Your task to perform on an android device: turn on notifications settings in the gmail app Image 0: 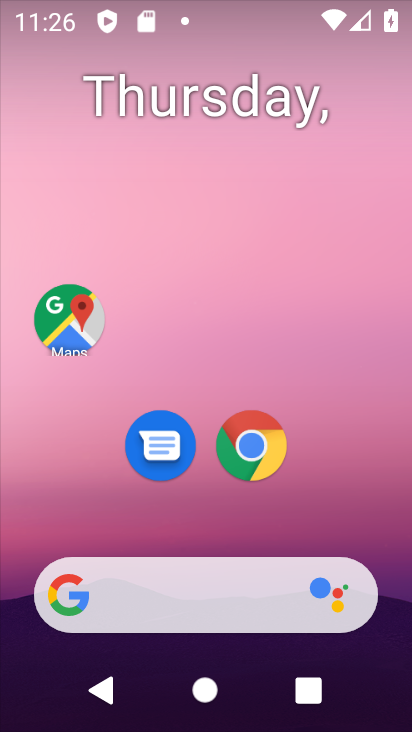
Step 0: drag from (211, 428) to (225, 83)
Your task to perform on an android device: turn on notifications settings in the gmail app Image 1: 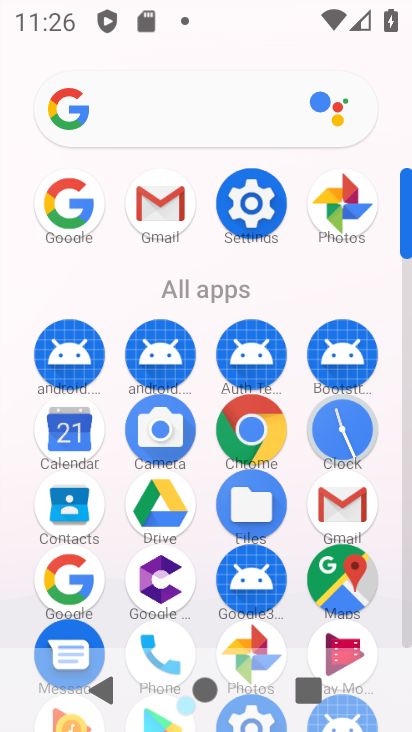
Step 1: click (177, 203)
Your task to perform on an android device: turn on notifications settings in the gmail app Image 2: 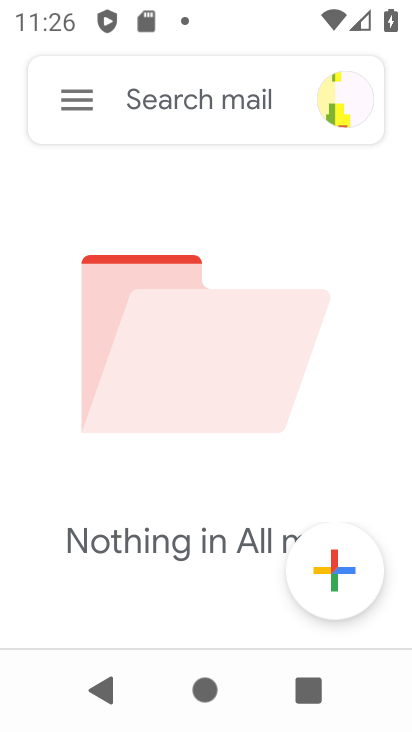
Step 2: click (73, 112)
Your task to perform on an android device: turn on notifications settings in the gmail app Image 3: 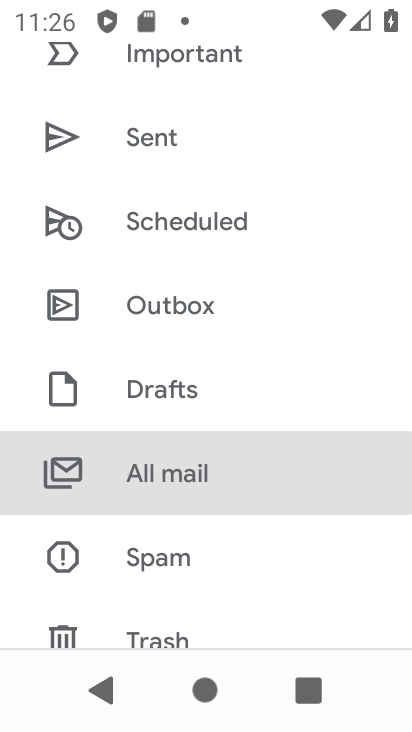
Step 3: drag from (218, 582) to (257, 252)
Your task to perform on an android device: turn on notifications settings in the gmail app Image 4: 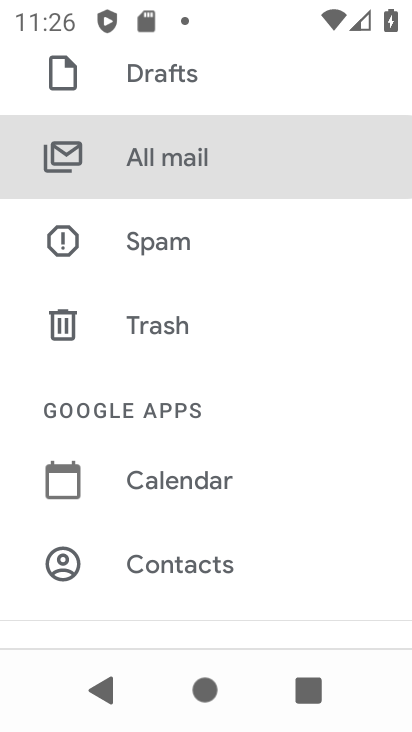
Step 4: drag from (238, 557) to (245, 295)
Your task to perform on an android device: turn on notifications settings in the gmail app Image 5: 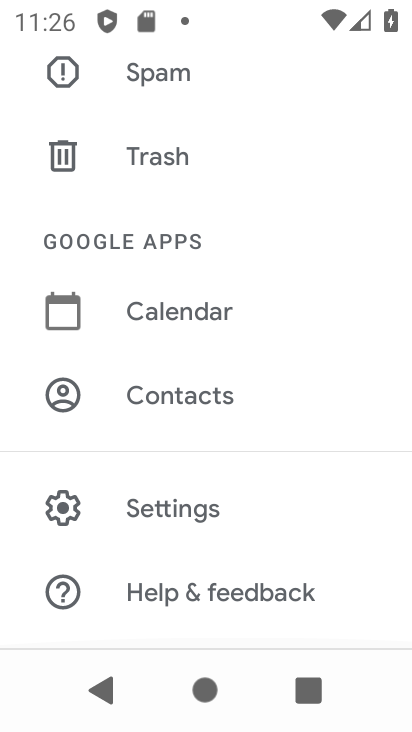
Step 5: click (177, 496)
Your task to perform on an android device: turn on notifications settings in the gmail app Image 6: 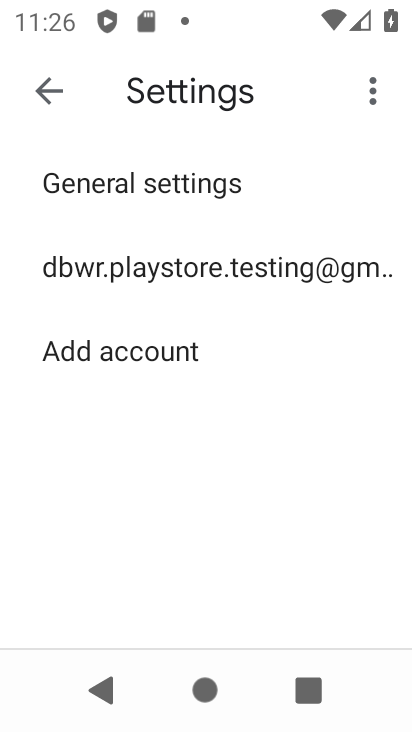
Step 6: click (200, 264)
Your task to perform on an android device: turn on notifications settings in the gmail app Image 7: 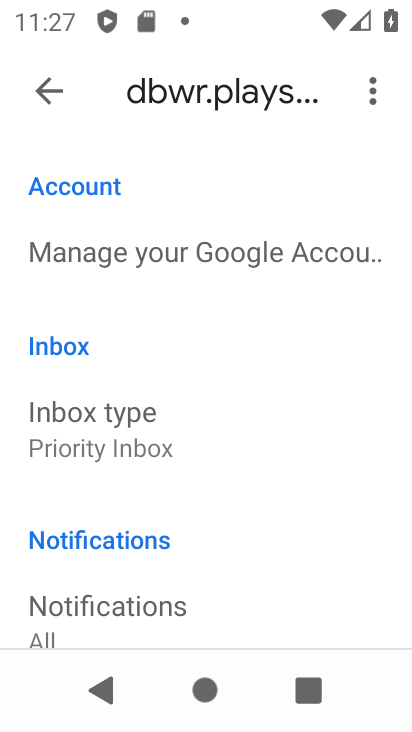
Step 7: drag from (217, 555) to (253, 289)
Your task to perform on an android device: turn on notifications settings in the gmail app Image 8: 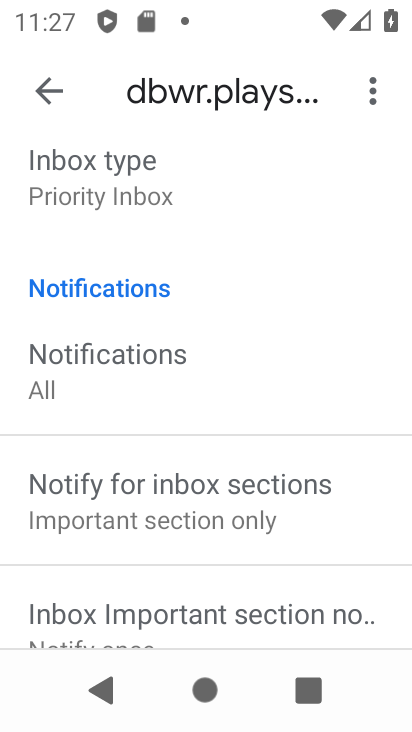
Step 8: drag from (241, 480) to (256, 276)
Your task to perform on an android device: turn on notifications settings in the gmail app Image 9: 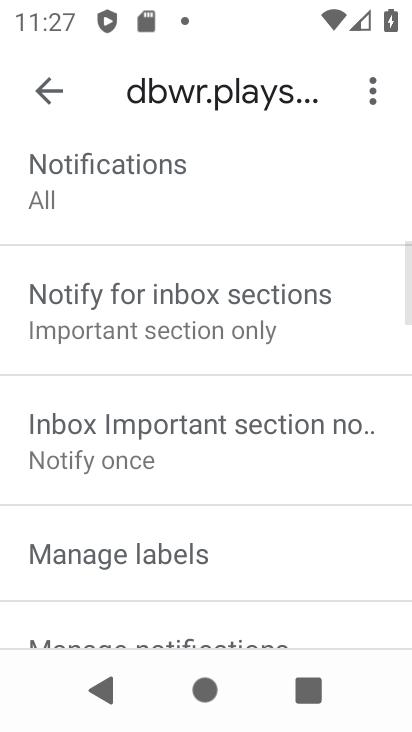
Step 9: drag from (204, 460) to (227, 317)
Your task to perform on an android device: turn on notifications settings in the gmail app Image 10: 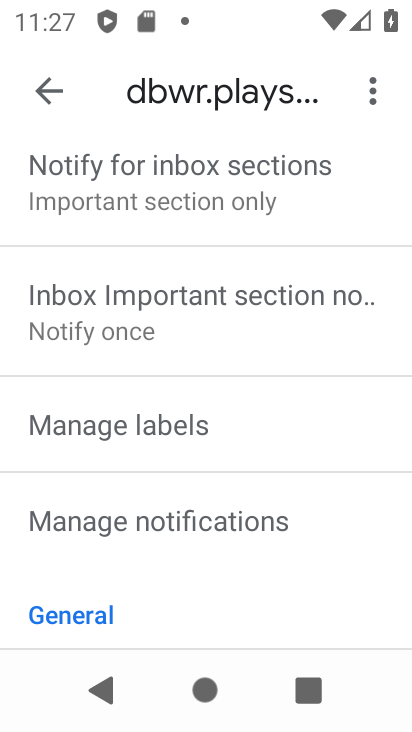
Step 10: click (197, 515)
Your task to perform on an android device: turn on notifications settings in the gmail app Image 11: 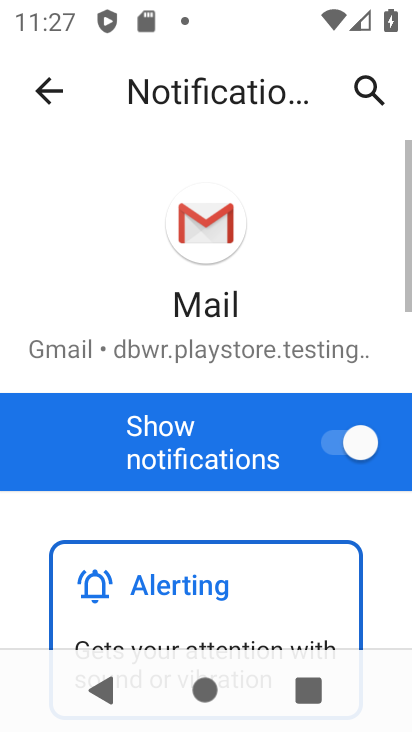
Step 11: task complete